Your task to perform on an android device: Open battery settings Image 0: 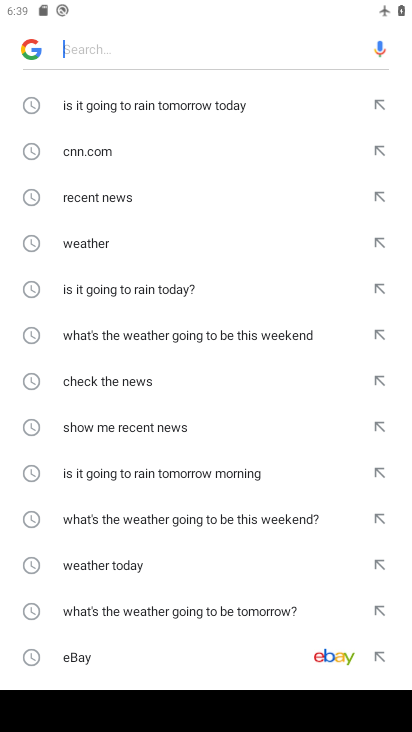
Step 0: press home button
Your task to perform on an android device: Open battery settings Image 1: 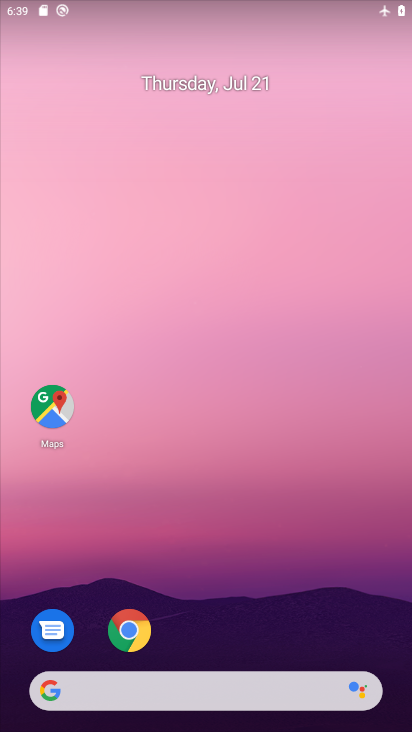
Step 1: drag from (200, 686) to (161, 184)
Your task to perform on an android device: Open battery settings Image 2: 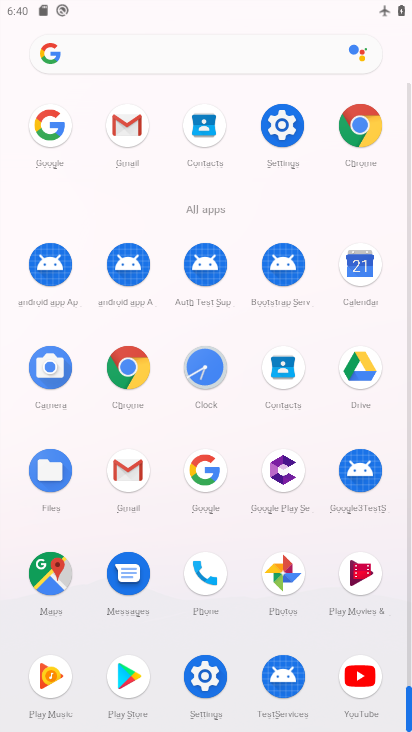
Step 2: click (284, 122)
Your task to perform on an android device: Open battery settings Image 3: 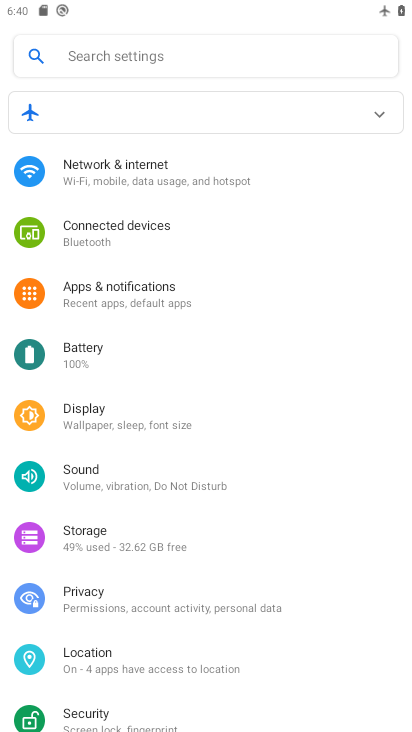
Step 3: click (88, 356)
Your task to perform on an android device: Open battery settings Image 4: 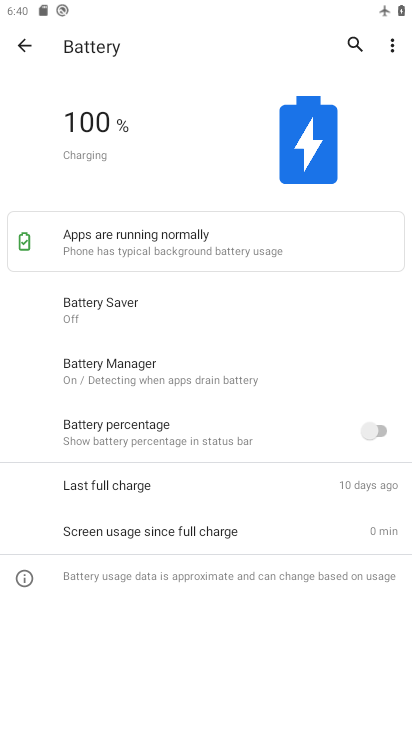
Step 4: task complete